Your task to perform on an android device: See recent photos Image 0: 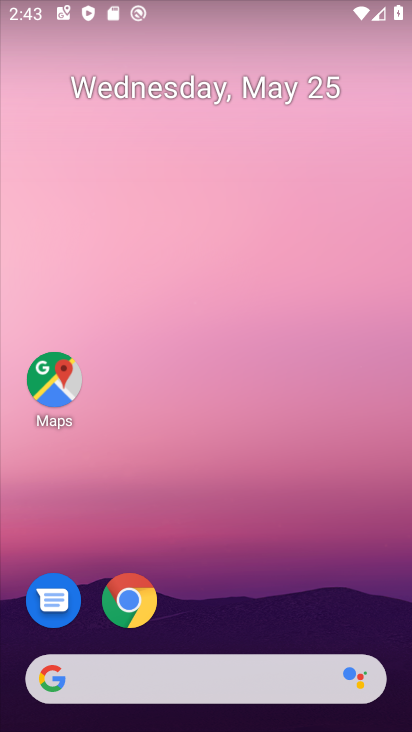
Step 0: drag from (70, 493) to (295, 128)
Your task to perform on an android device: See recent photos Image 1: 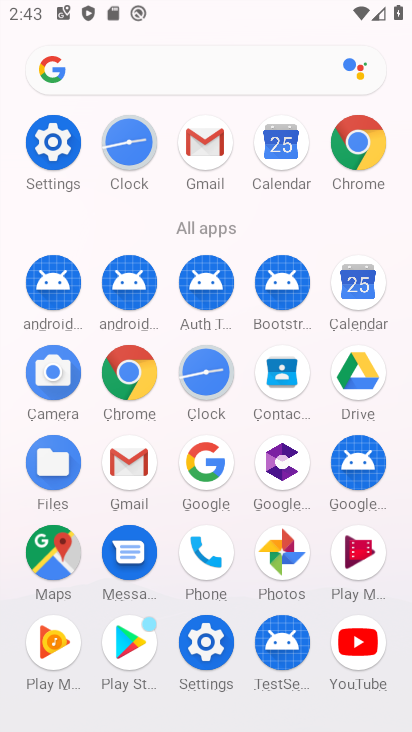
Step 1: click (270, 548)
Your task to perform on an android device: See recent photos Image 2: 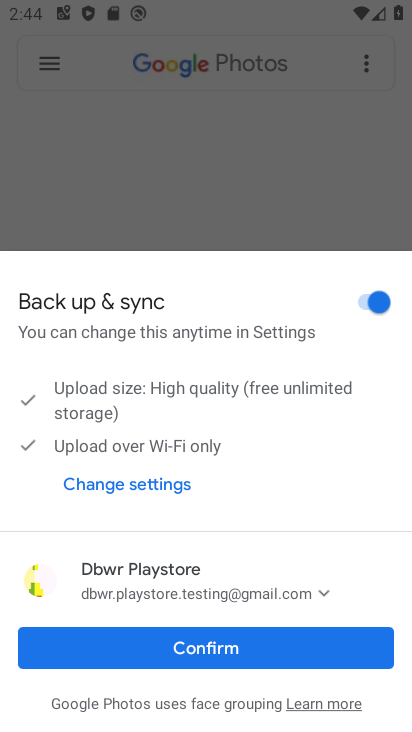
Step 2: click (239, 645)
Your task to perform on an android device: See recent photos Image 3: 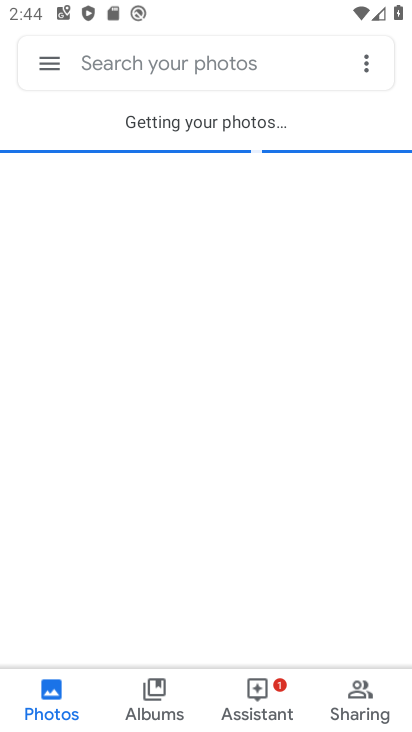
Step 3: task complete